Your task to perform on an android device: See recent photos Image 0: 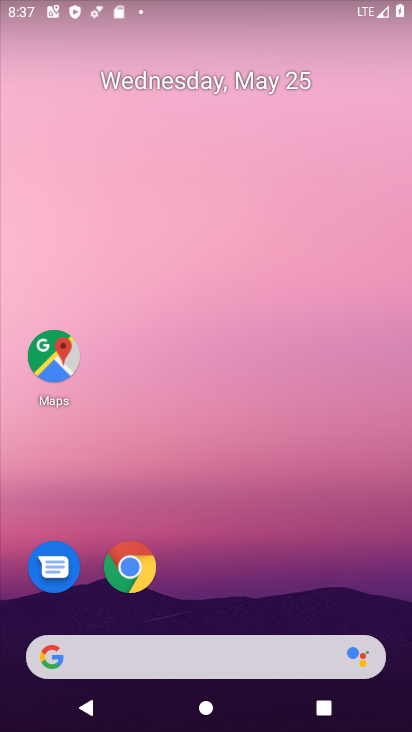
Step 0: drag from (274, 533) to (276, 76)
Your task to perform on an android device: See recent photos Image 1: 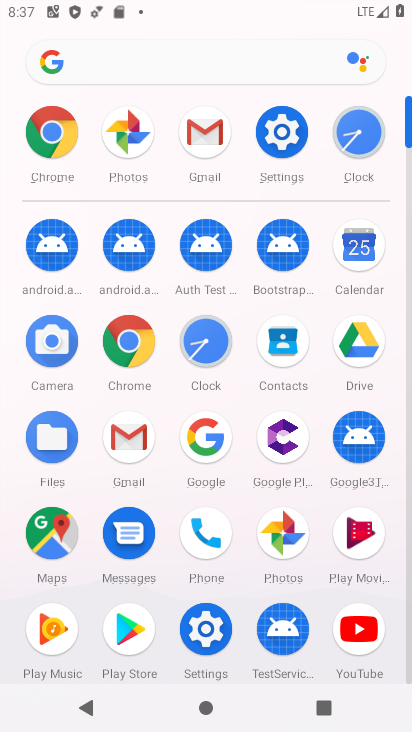
Step 1: click (135, 135)
Your task to perform on an android device: See recent photos Image 2: 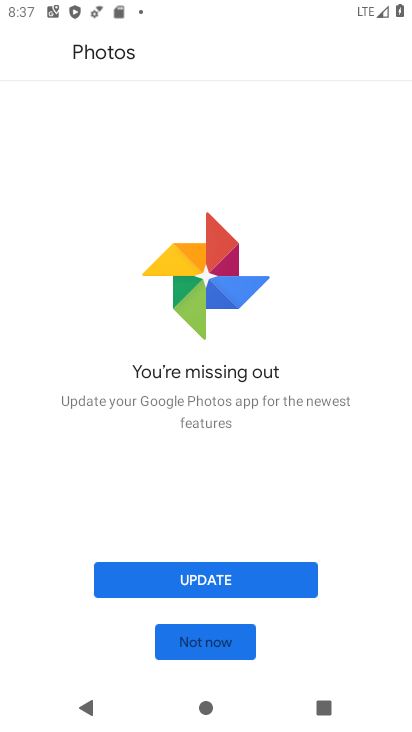
Step 2: click (189, 648)
Your task to perform on an android device: See recent photos Image 3: 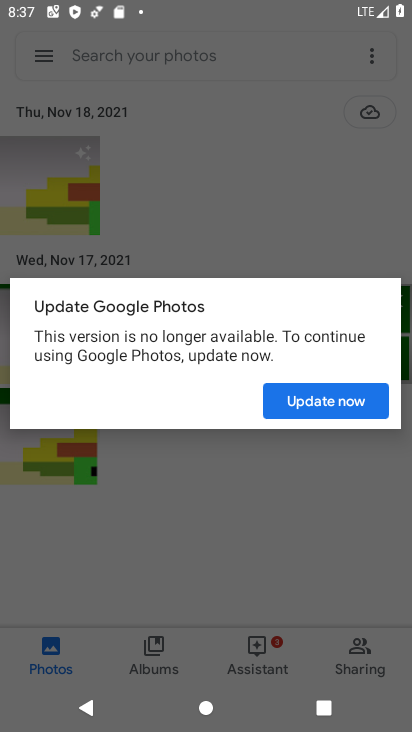
Step 3: click (374, 402)
Your task to perform on an android device: See recent photos Image 4: 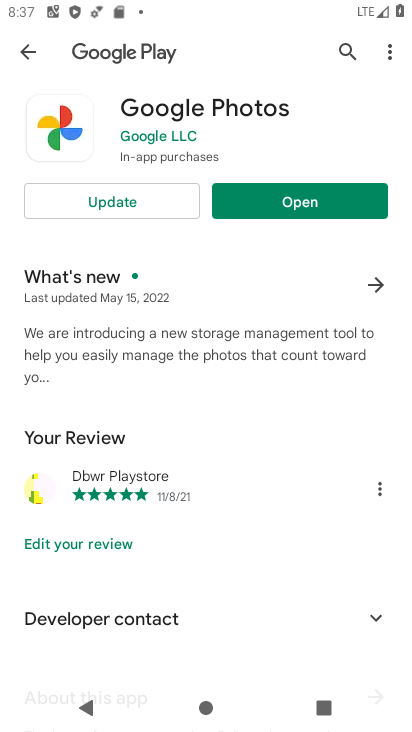
Step 4: click (312, 201)
Your task to perform on an android device: See recent photos Image 5: 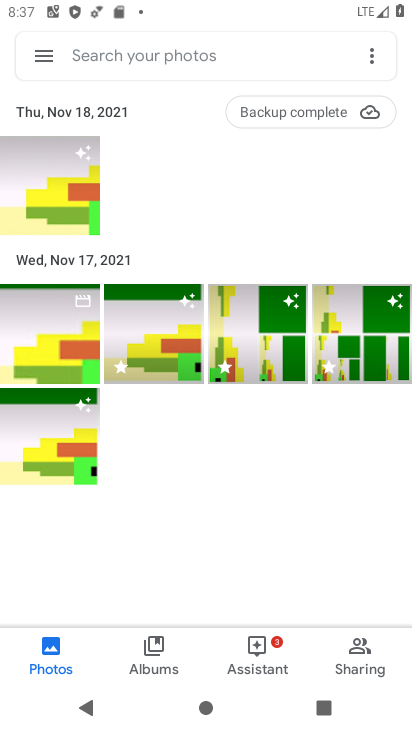
Step 5: task complete